Your task to perform on an android device: Open calendar and show me the first week of next month Image 0: 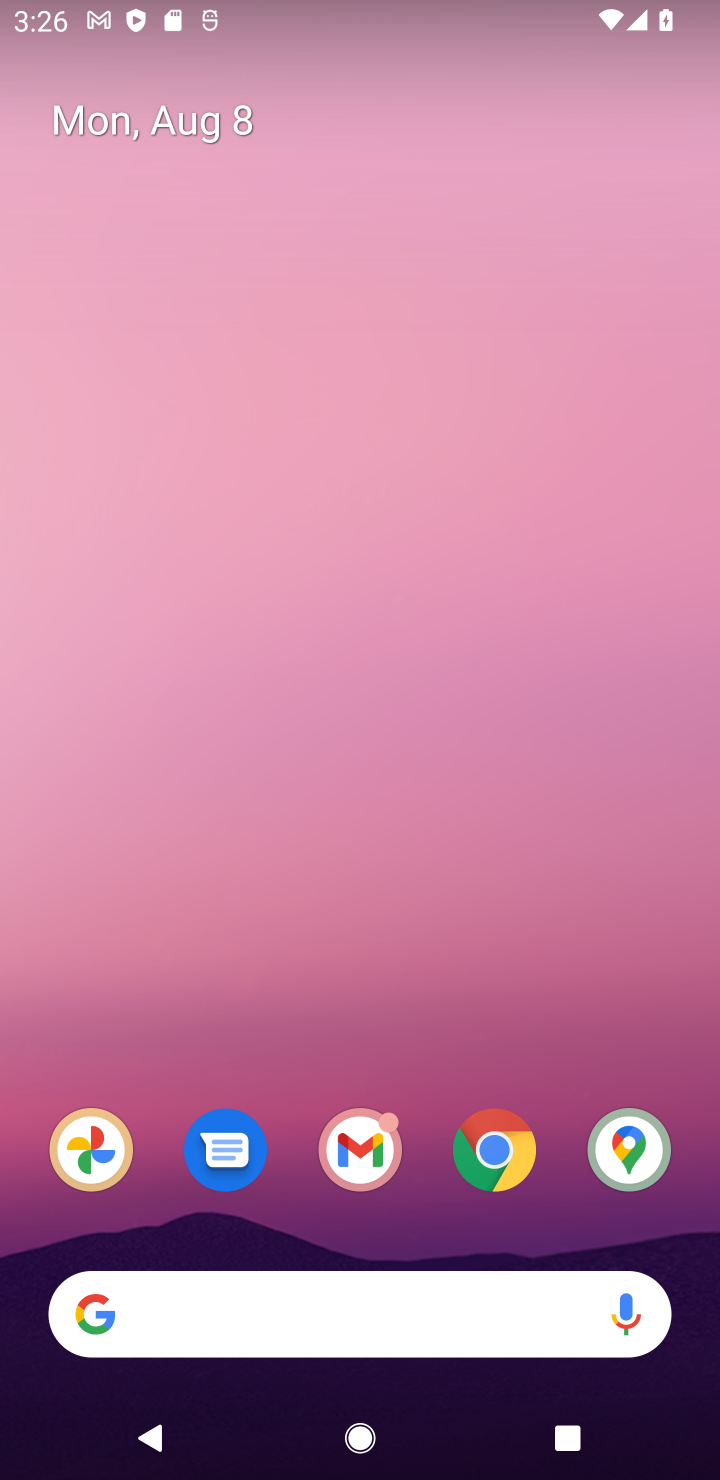
Step 0: drag from (538, 1221) to (371, 2)
Your task to perform on an android device: Open calendar and show me the first week of next month Image 1: 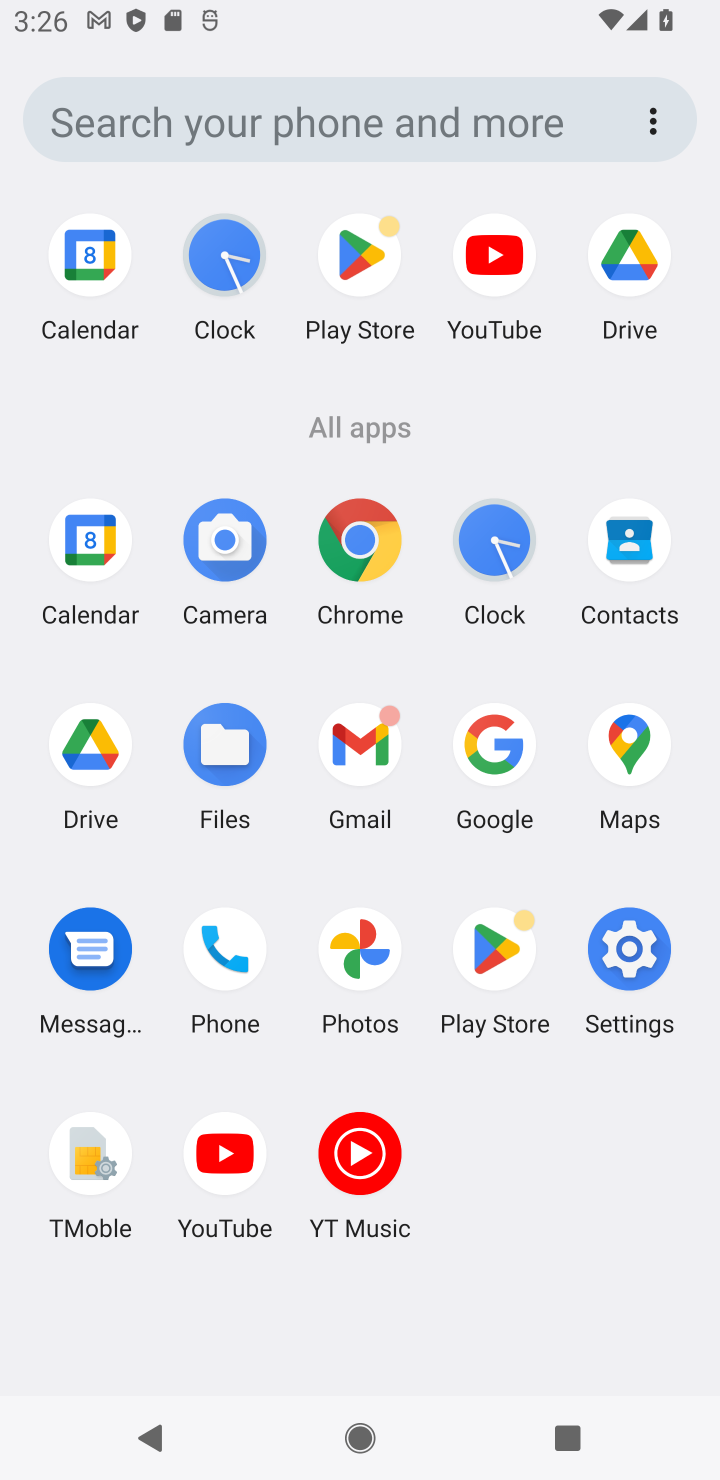
Step 1: click (95, 294)
Your task to perform on an android device: Open calendar and show me the first week of next month Image 2: 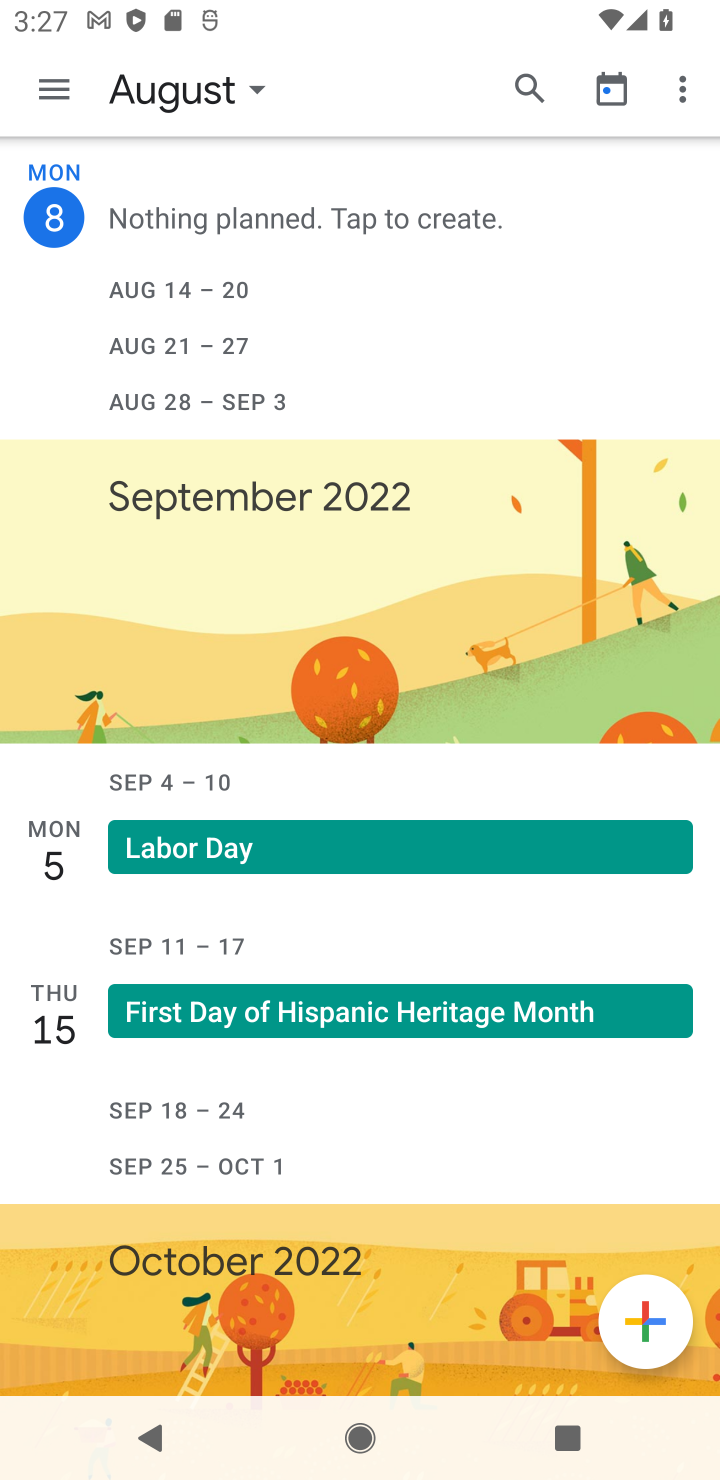
Step 2: task complete